Your task to perform on an android device: Open the calendar app, open the side menu, and click the "Day" option Image 0: 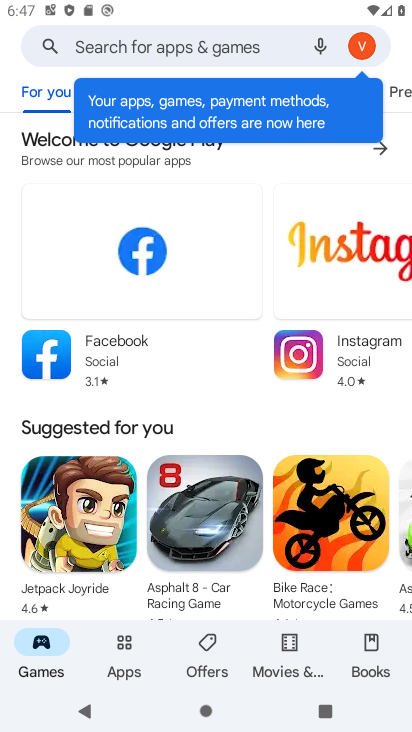
Step 0: press home button
Your task to perform on an android device: Open the calendar app, open the side menu, and click the "Day" option Image 1: 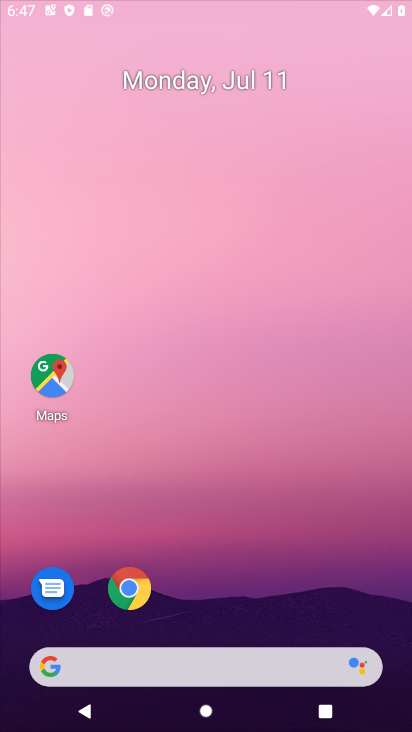
Step 1: drag from (385, 673) to (117, 113)
Your task to perform on an android device: Open the calendar app, open the side menu, and click the "Day" option Image 2: 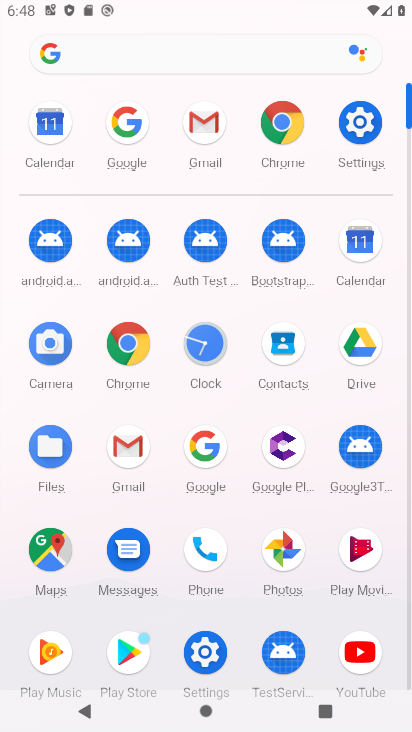
Step 2: click (367, 264)
Your task to perform on an android device: Open the calendar app, open the side menu, and click the "Day" option Image 3: 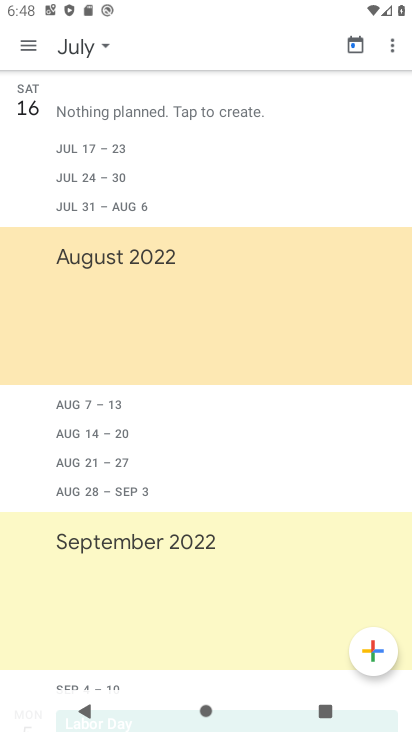
Step 3: click (27, 37)
Your task to perform on an android device: Open the calendar app, open the side menu, and click the "Day" option Image 4: 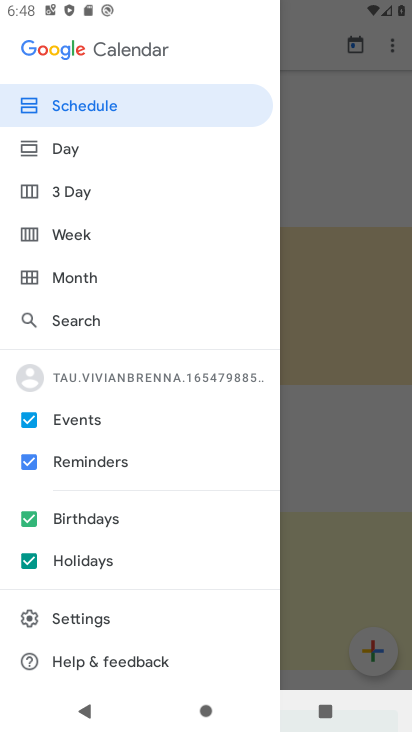
Step 4: click (76, 154)
Your task to perform on an android device: Open the calendar app, open the side menu, and click the "Day" option Image 5: 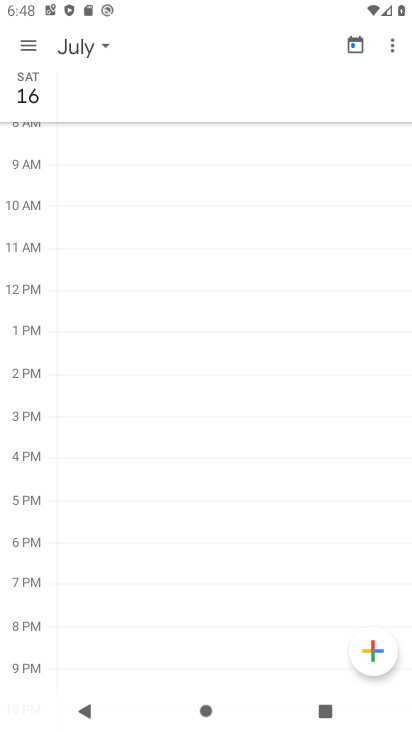
Step 5: task complete